Your task to perform on an android device: Do I have any events tomorrow? Image 0: 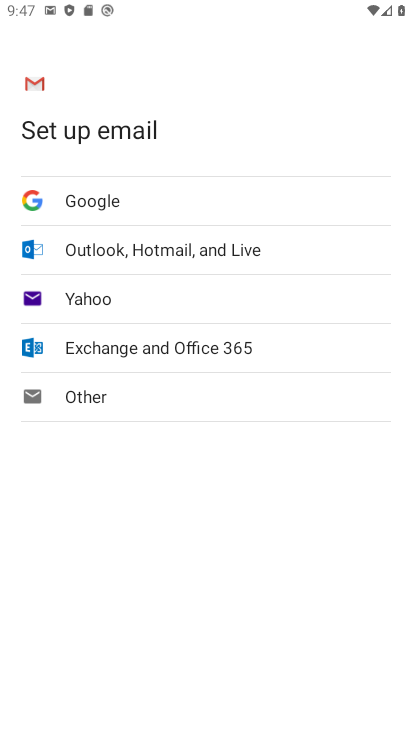
Step 0: drag from (164, 506) to (261, 104)
Your task to perform on an android device: Do I have any events tomorrow? Image 1: 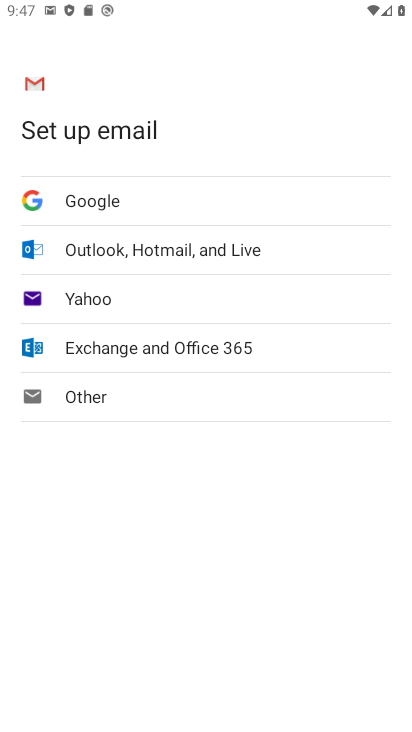
Step 1: press home button
Your task to perform on an android device: Do I have any events tomorrow? Image 2: 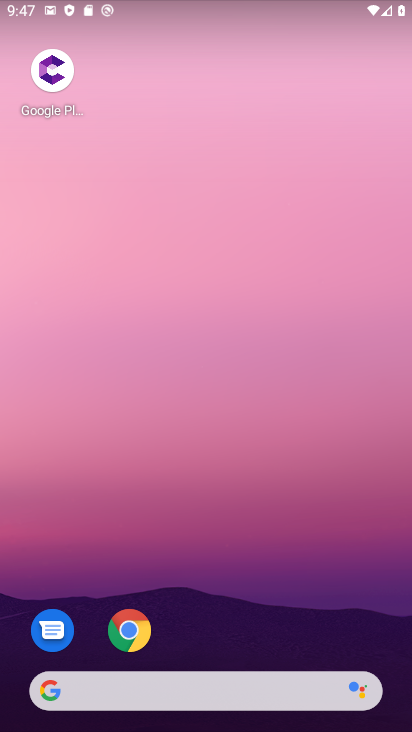
Step 2: drag from (169, 596) to (241, 59)
Your task to perform on an android device: Do I have any events tomorrow? Image 3: 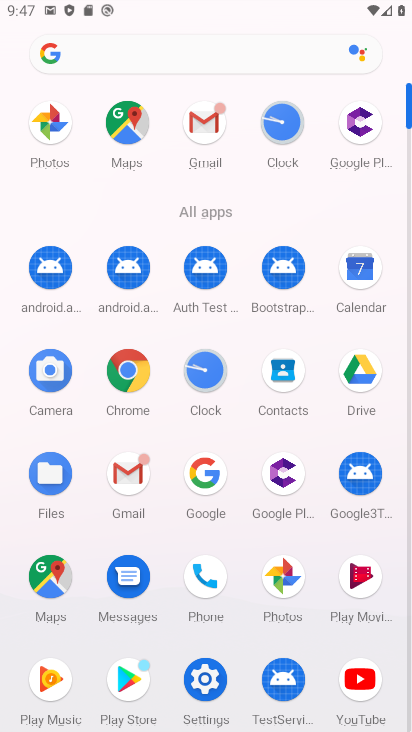
Step 3: click (356, 263)
Your task to perform on an android device: Do I have any events tomorrow? Image 4: 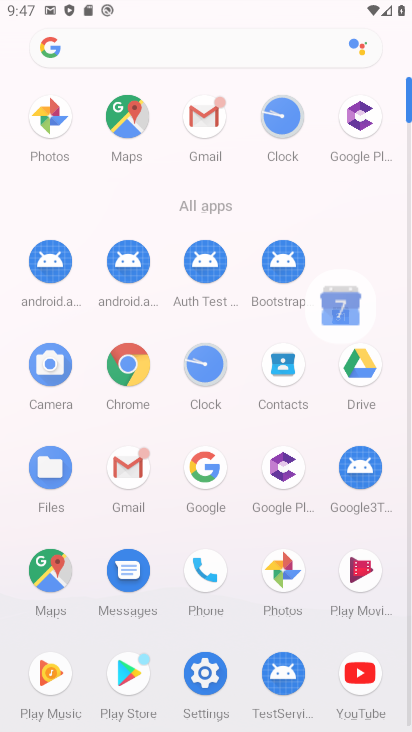
Step 4: click (356, 262)
Your task to perform on an android device: Do I have any events tomorrow? Image 5: 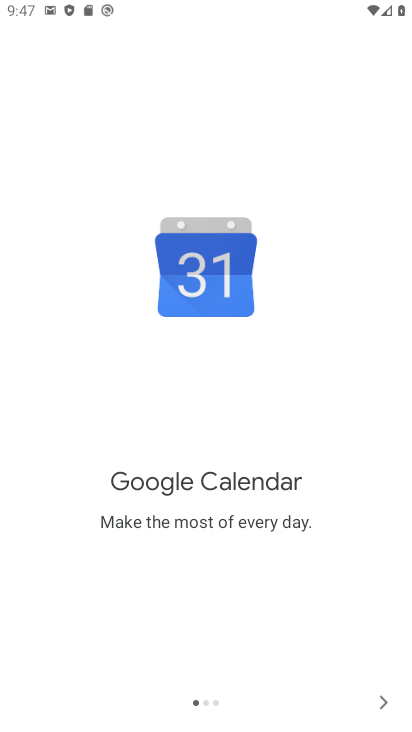
Step 5: click (377, 703)
Your task to perform on an android device: Do I have any events tomorrow? Image 6: 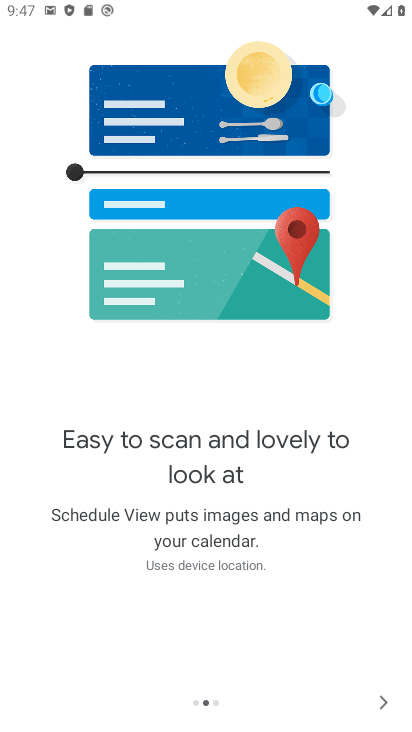
Step 6: click (377, 703)
Your task to perform on an android device: Do I have any events tomorrow? Image 7: 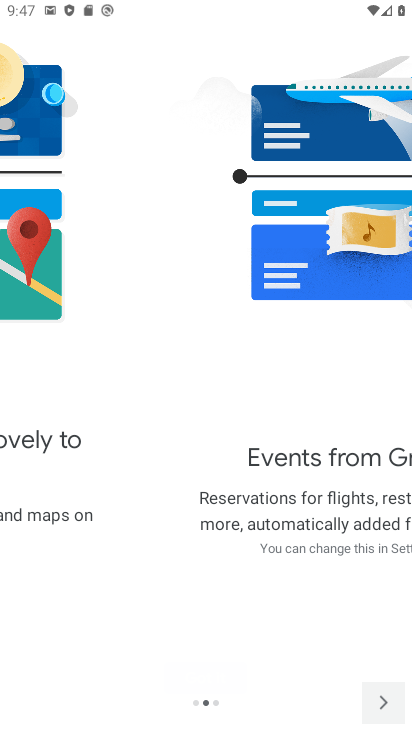
Step 7: click (377, 702)
Your task to perform on an android device: Do I have any events tomorrow? Image 8: 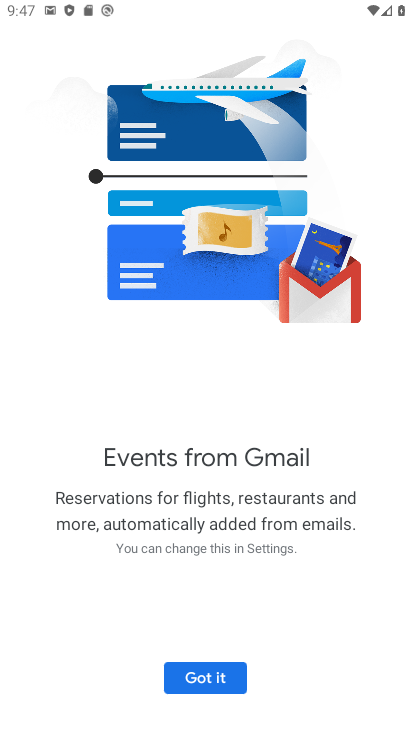
Step 8: click (200, 666)
Your task to perform on an android device: Do I have any events tomorrow? Image 9: 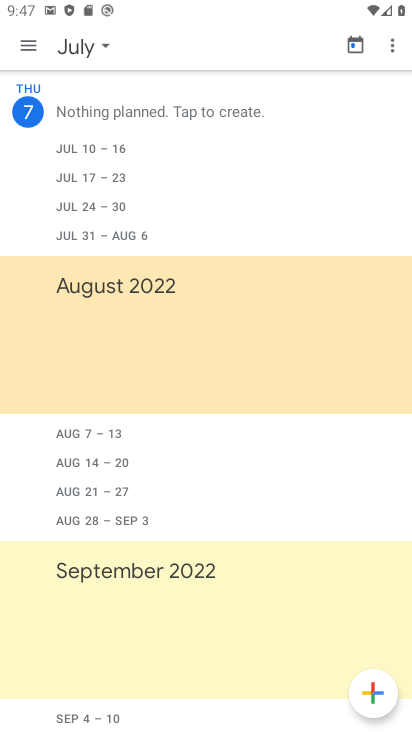
Step 9: click (86, 50)
Your task to perform on an android device: Do I have any events tomorrow? Image 10: 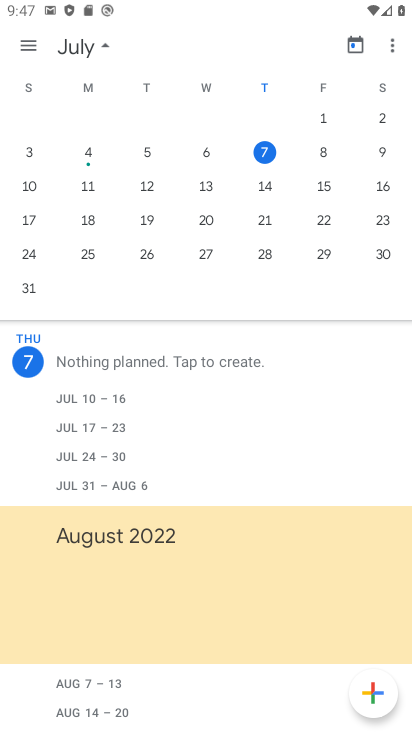
Step 10: drag from (373, 197) to (0, 194)
Your task to perform on an android device: Do I have any events tomorrow? Image 11: 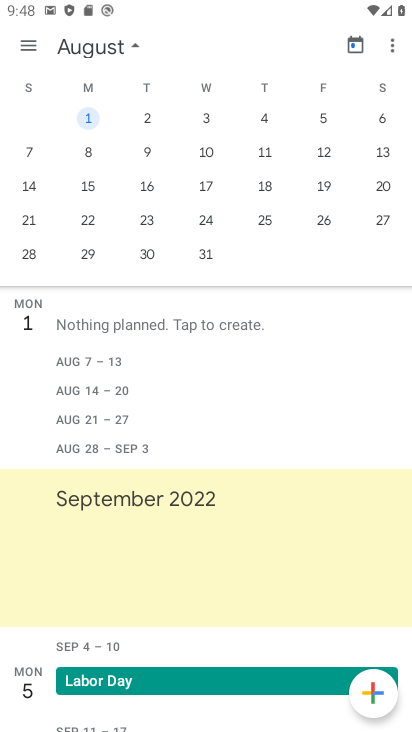
Step 11: drag from (43, 190) to (408, 183)
Your task to perform on an android device: Do I have any events tomorrow? Image 12: 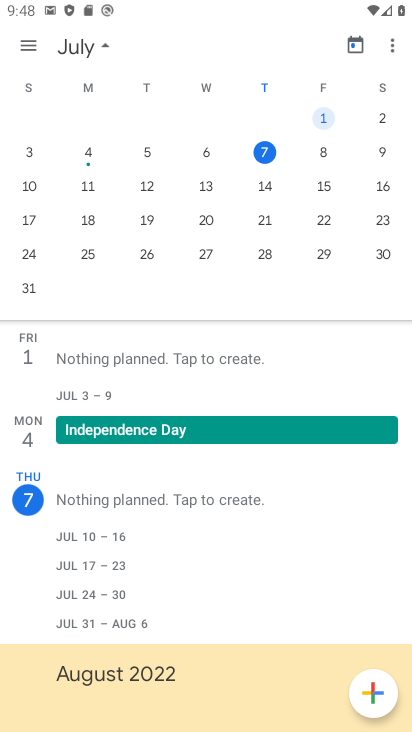
Step 12: click (323, 144)
Your task to perform on an android device: Do I have any events tomorrow? Image 13: 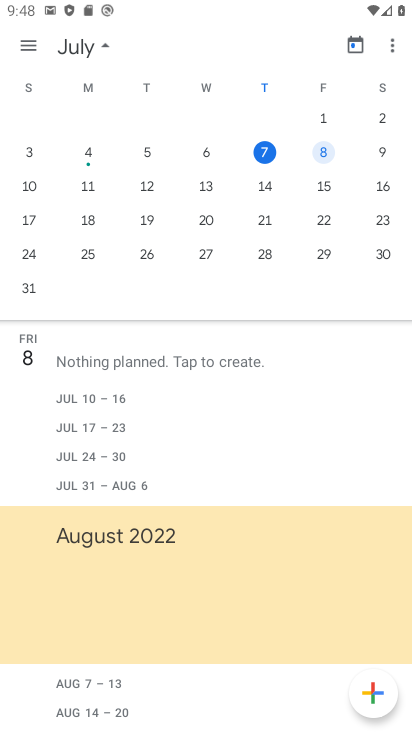
Step 13: task complete